Your task to perform on an android device: Open network settings Image 0: 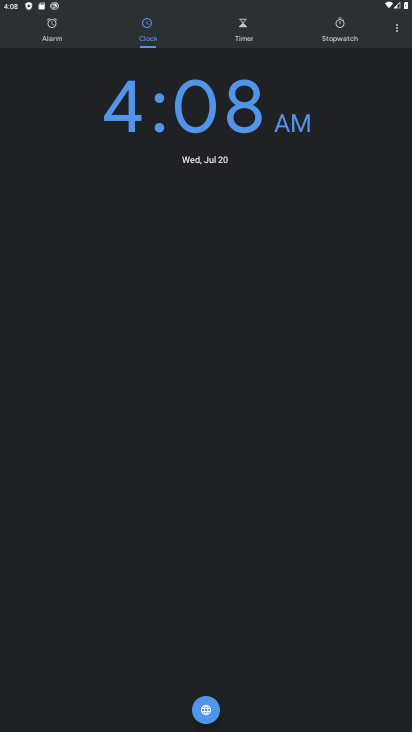
Step 0: press home button
Your task to perform on an android device: Open network settings Image 1: 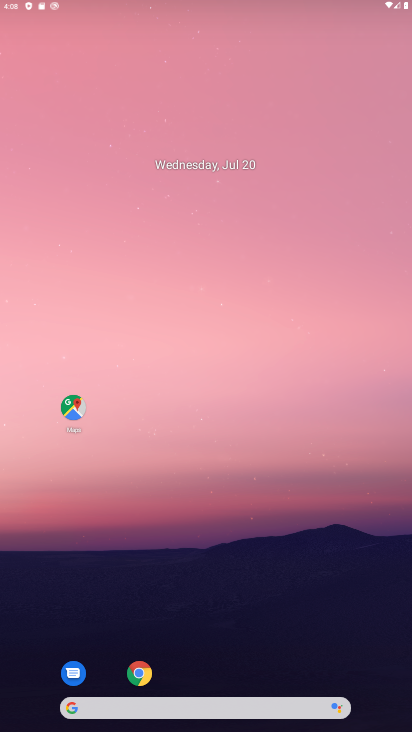
Step 1: drag from (296, 642) to (403, 180)
Your task to perform on an android device: Open network settings Image 2: 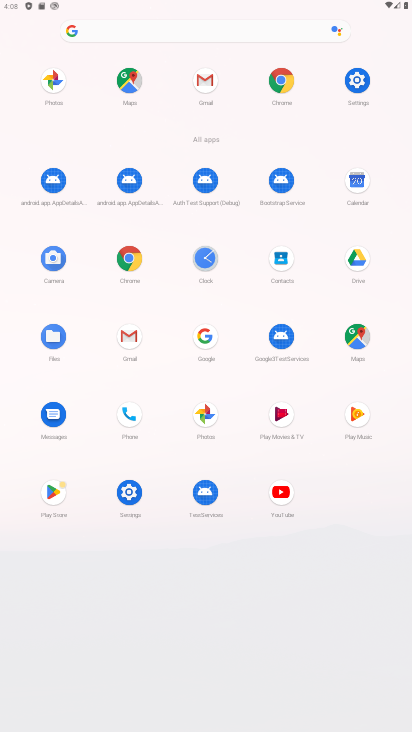
Step 2: click (127, 490)
Your task to perform on an android device: Open network settings Image 3: 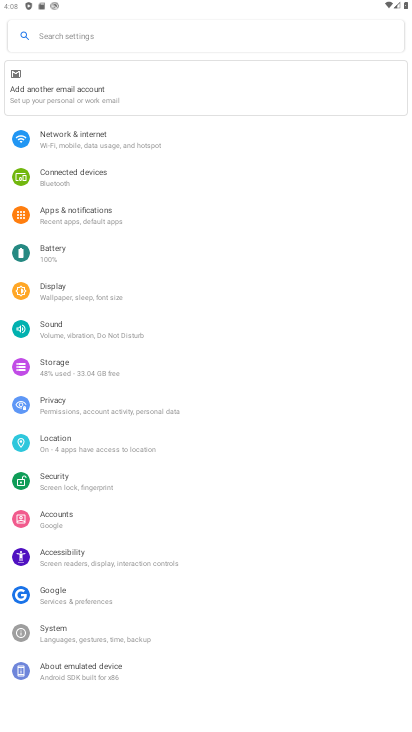
Step 3: click (69, 136)
Your task to perform on an android device: Open network settings Image 4: 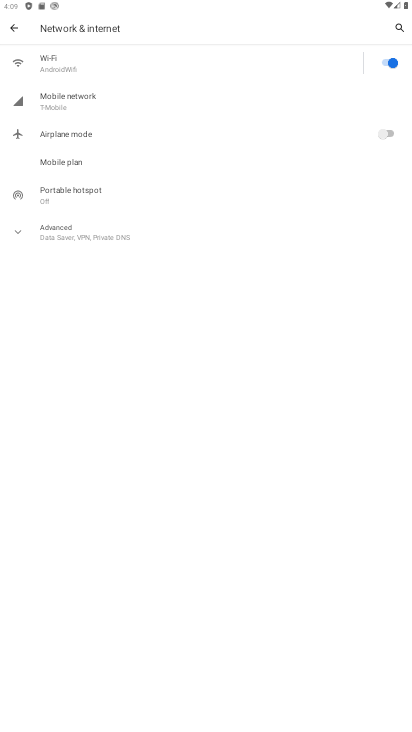
Step 4: task complete